Your task to perform on an android device: set an alarm Image 0: 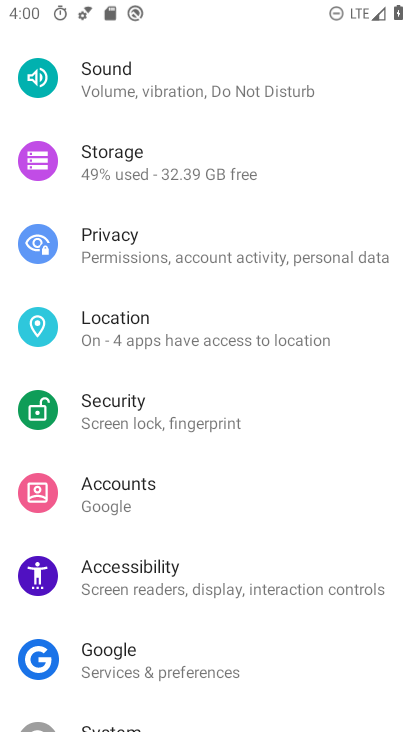
Step 0: press home button
Your task to perform on an android device: set an alarm Image 1: 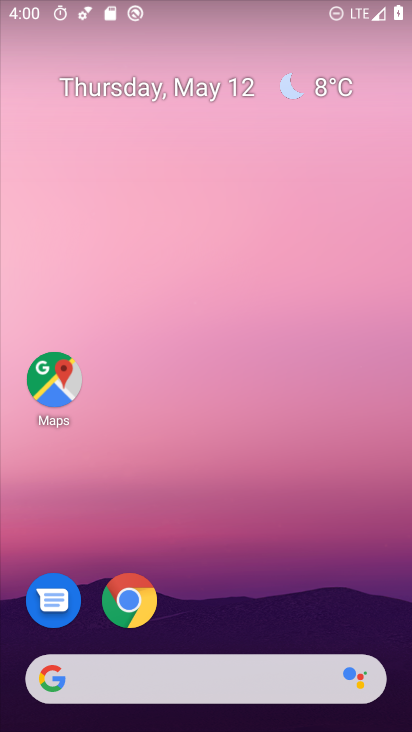
Step 1: drag from (251, 722) to (252, 191)
Your task to perform on an android device: set an alarm Image 2: 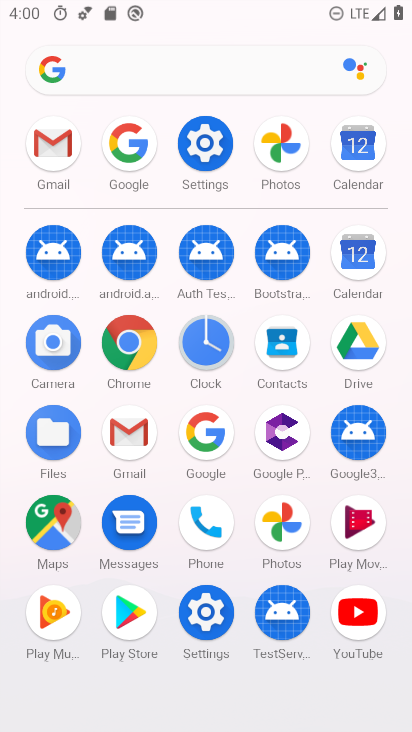
Step 2: click (199, 340)
Your task to perform on an android device: set an alarm Image 3: 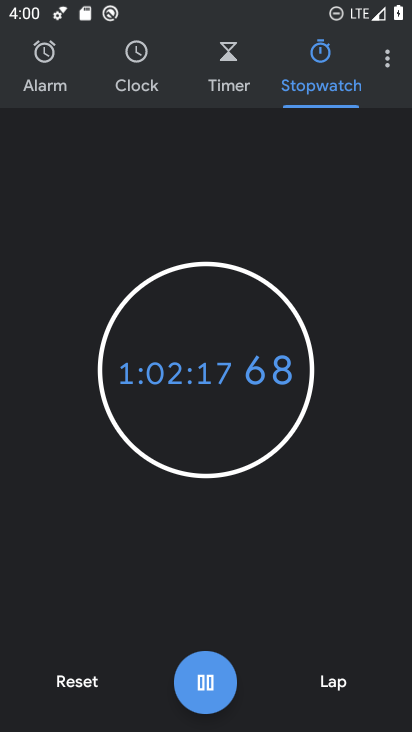
Step 3: click (40, 60)
Your task to perform on an android device: set an alarm Image 4: 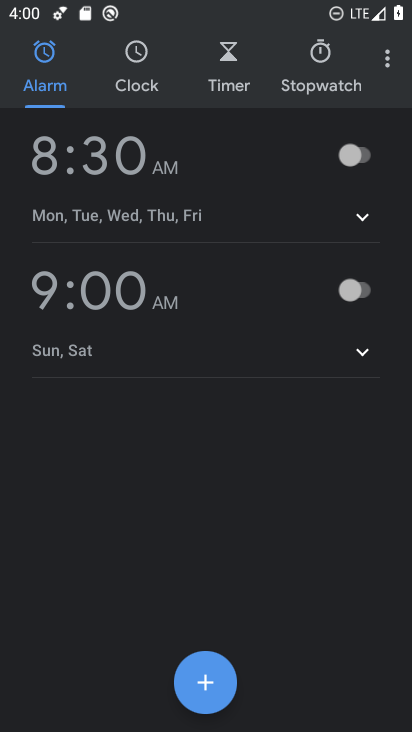
Step 4: click (204, 678)
Your task to perform on an android device: set an alarm Image 5: 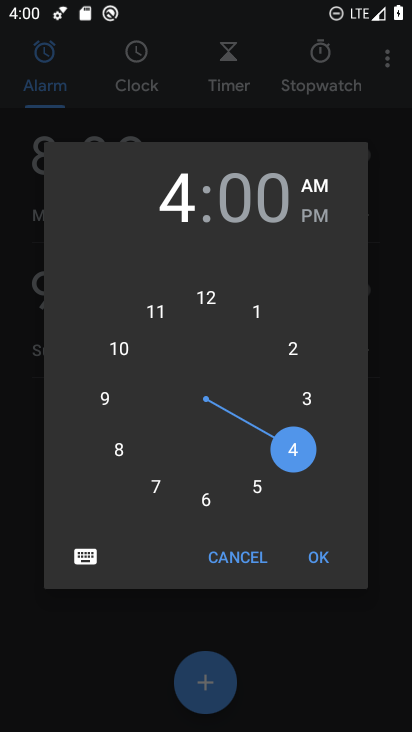
Step 5: click (205, 506)
Your task to perform on an android device: set an alarm Image 6: 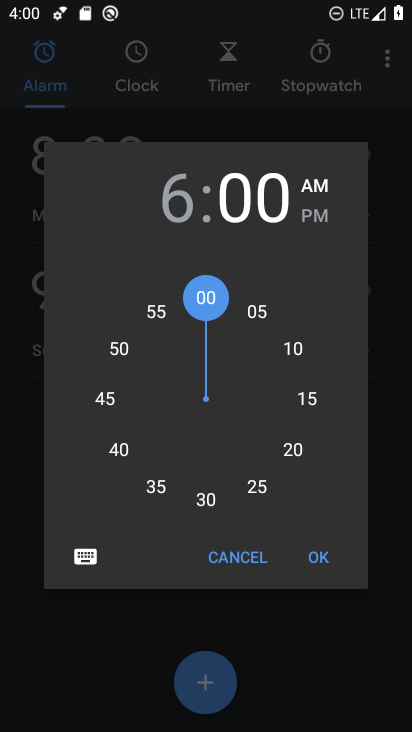
Step 6: click (316, 549)
Your task to perform on an android device: set an alarm Image 7: 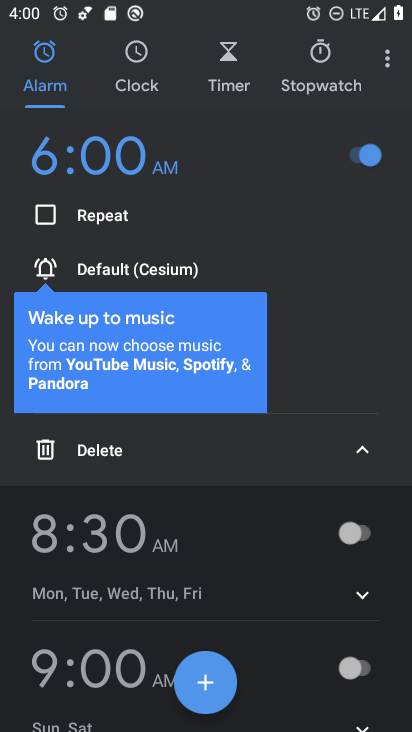
Step 7: task complete